Your task to perform on an android device: change your default location settings in chrome Image 0: 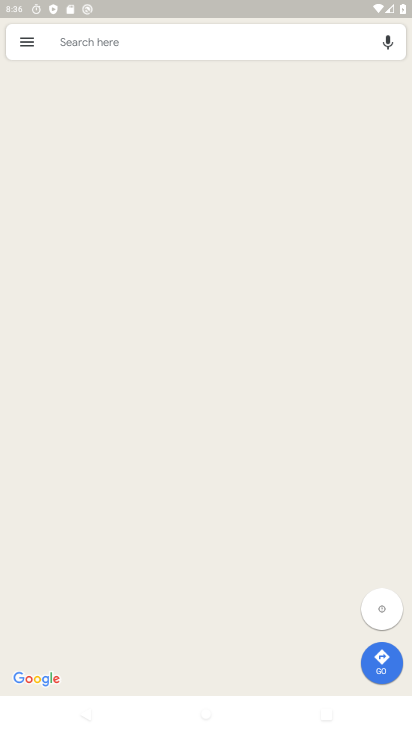
Step 0: press home button
Your task to perform on an android device: change your default location settings in chrome Image 1: 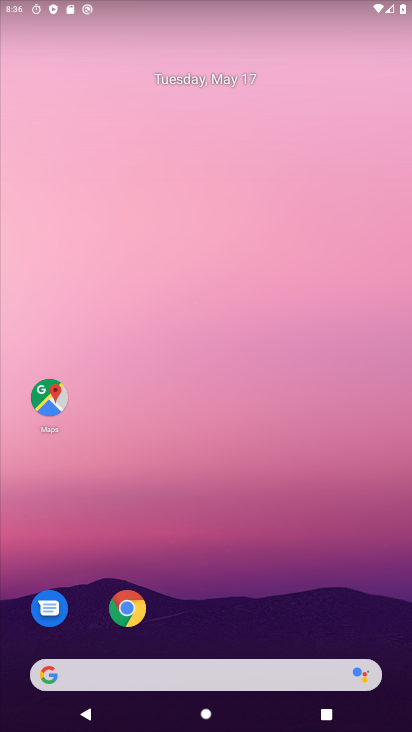
Step 1: drag from (332, 589) to (334, 201)
Your task to perform on an android device: change your default location settings in chrome Image 2: 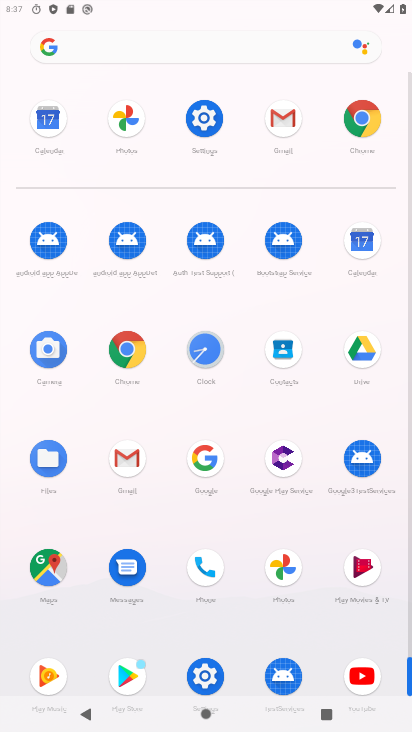
Step 2: click (139, 347)
Your task to perform on an android device: change your default location settings in chrome Image 3: 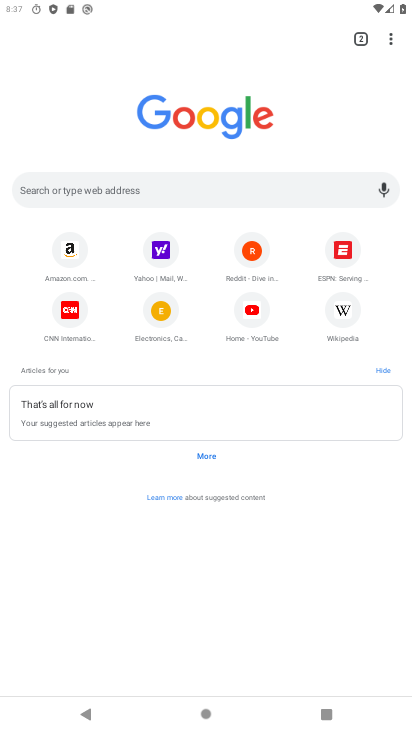
Step 3: drag from (390, 44) to (251, 339)
Your task to perform on an android device: change your default location settings in chrome Image 4: 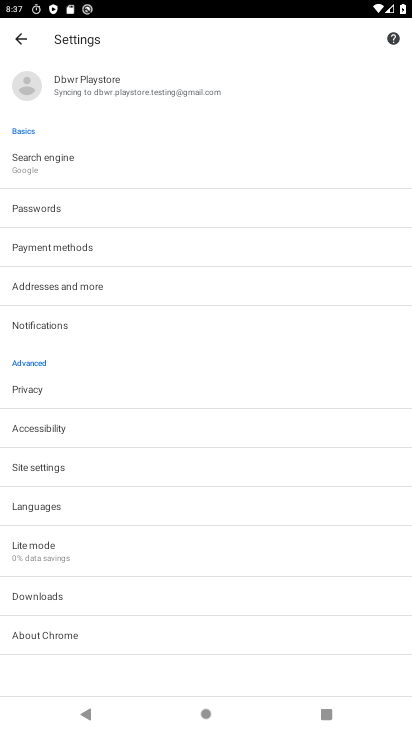
Step 4: click (43, 462)
Your task to perform on an android device: change your default location settings in chrome Image 5: 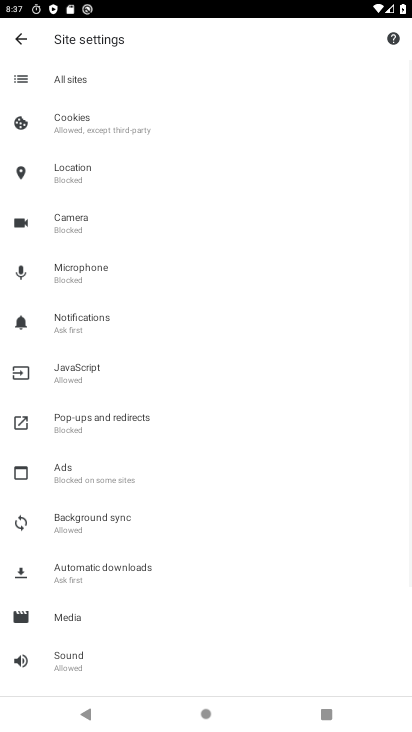
Step 5: click (98, 172)
Your task to perform on an android device: change your default location settings in chrome Image 6: 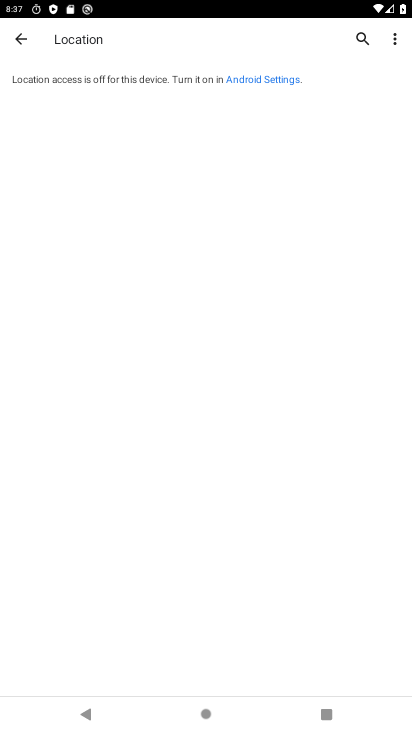
Step 6: task complete